Your task to perform on an android device: Open wifi settings Image 0: 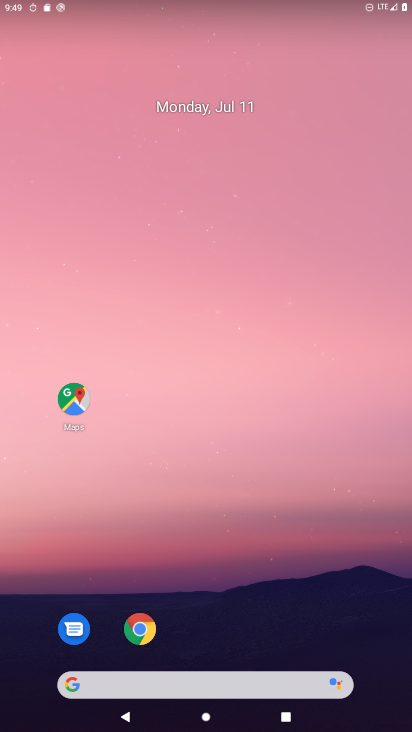
Step 0: drag from (196, 7) to (166, 633)
Your task to perform on an android device: Open wifi settings Image 1: 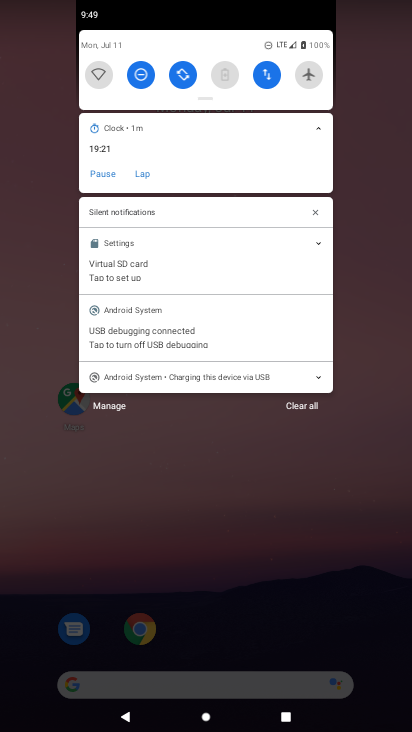
Step 1: click (99, 80)
Your task to perform on an android device: Open wifi settings Image 2: 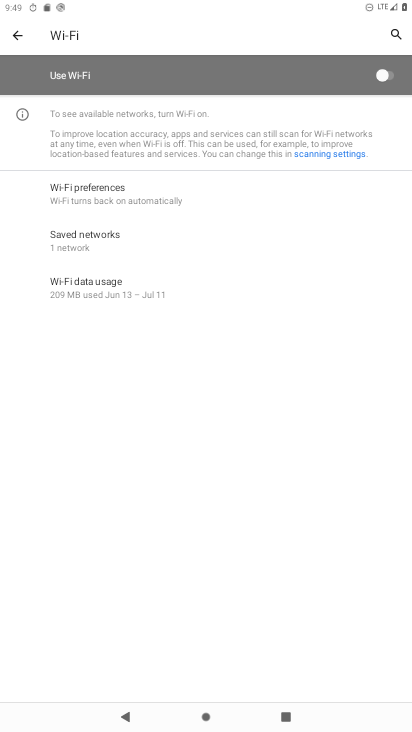
Step 2: task complete